Your task to perform on an android device: allow cookies in the chrome app Image 0: 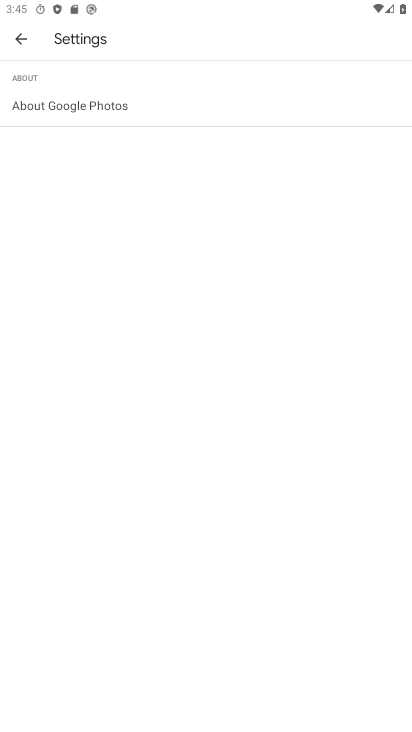
Step 0: press back button
Your task to perform on an android device: allow cookies in the chrome app Image 1: 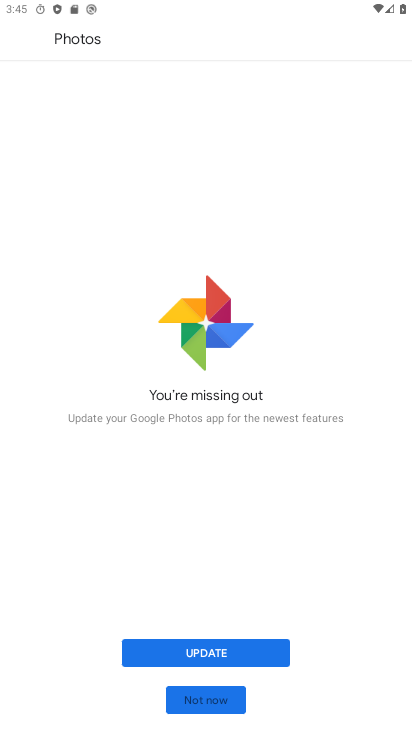
Step 1: press back button
Your task to perform on an android device: allow cookies in the chrome app Image 2: 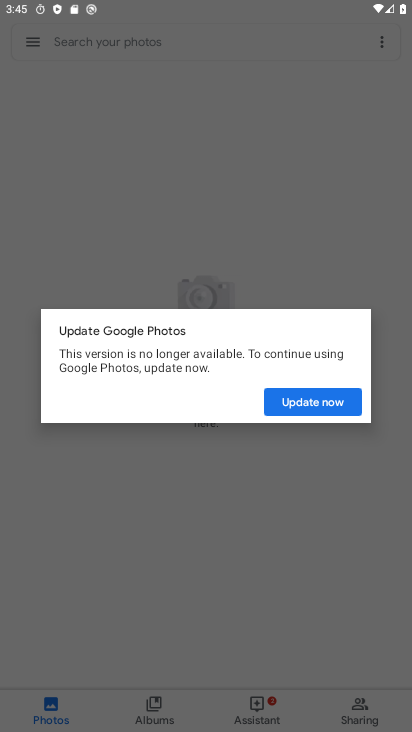
Step 2: press back button
Your task to perform on an android device: allow cookies in the chrome app Image 3: 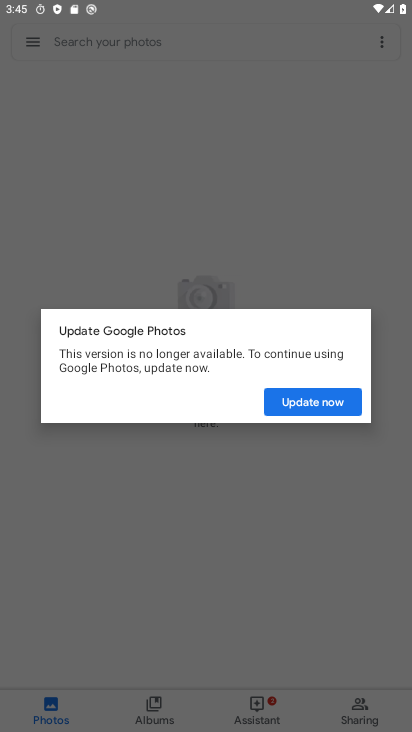
Step 3: press home button
Your task to perform on an android device: allow cookies in the chrome app Image 4: 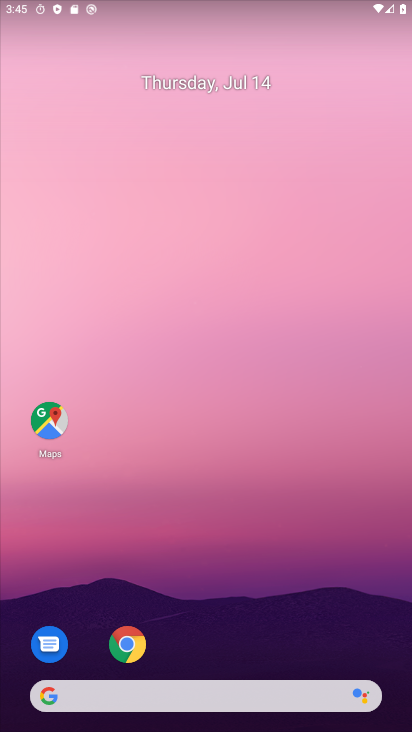
Step 4: click (118, 645)
Your task to perform on an android device: allow cookies in the chrome app Image 5: 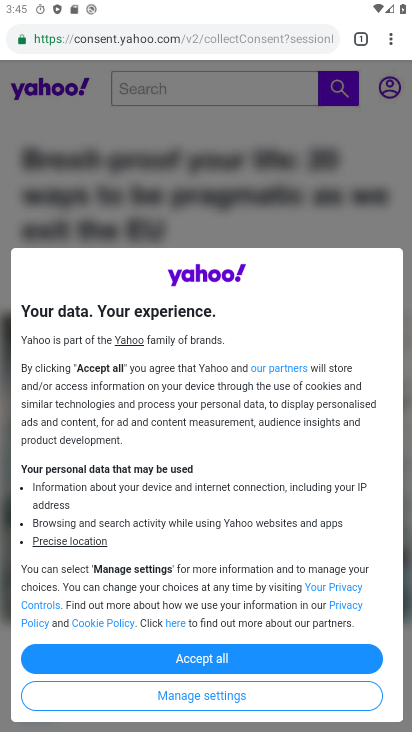
Step 5: drag from (393, 38) to (259, 462)
Your task to perform on an android device: allow cookies in the chrome app Image 6: 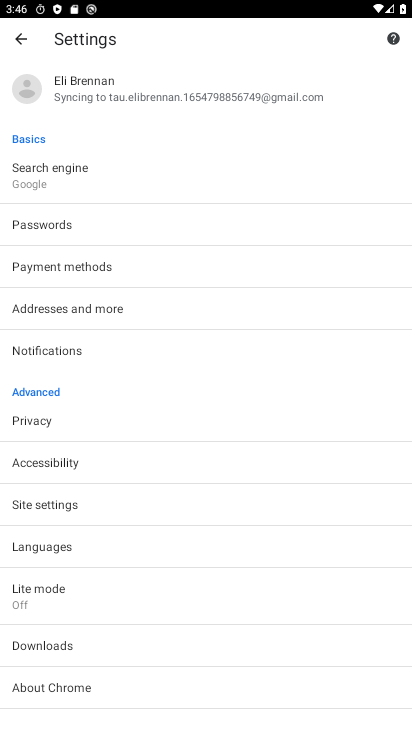
Step 6: click (88, 507)
Your task to perform on an android device: allow cookies in the chrome app Image 7: 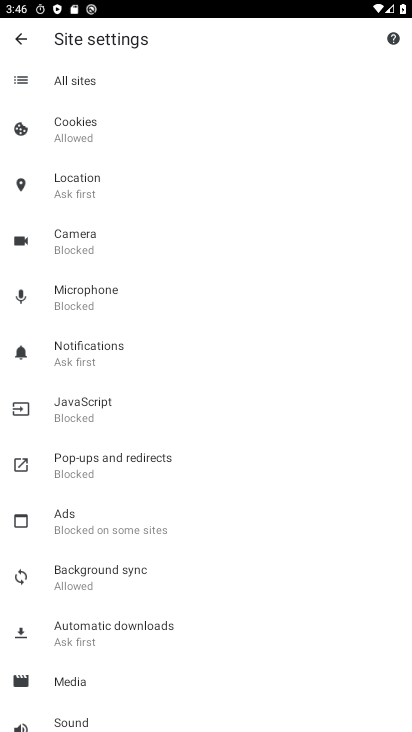
Step 7: click (107, 123)
Your task to perform on an android device: allow cookies in the chrome app Image 8: 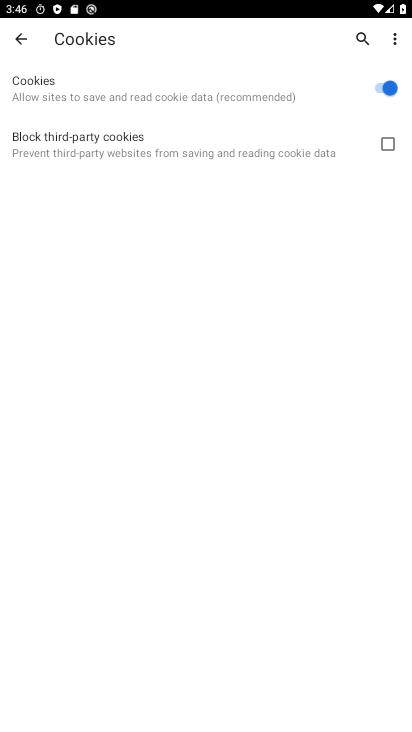
Step 8: task complete